Your task to perform on an android device: toggle translation in the chrome app Image 0: 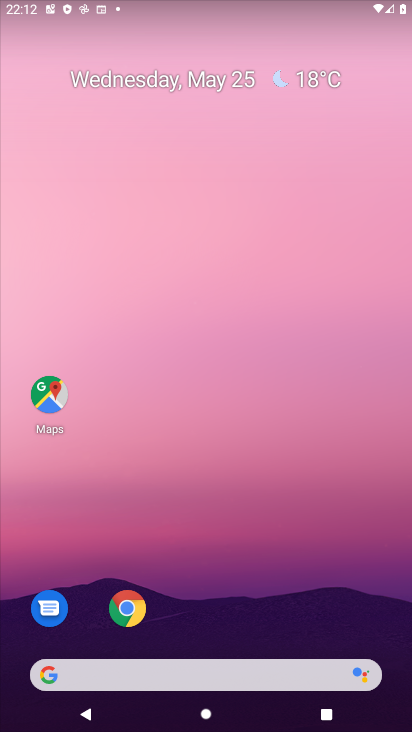
Step 0: click (135, 613)
Your task to perform on an android device: toggle translation in the chrome app Image 1: 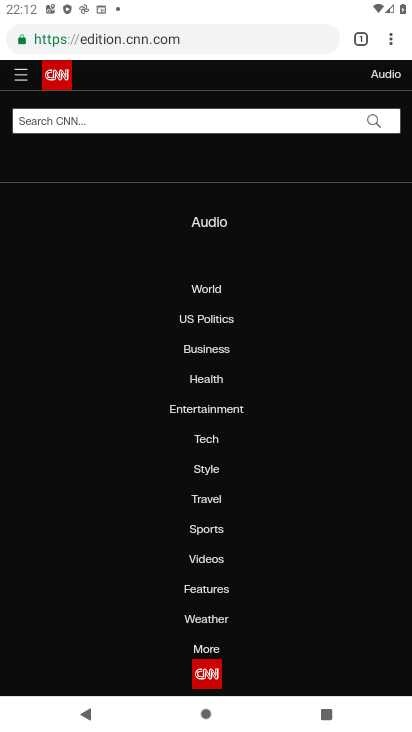
Step 1: click (390, 27)
Your task to perform on an android device: toggle translation in the chrome app Image 2: 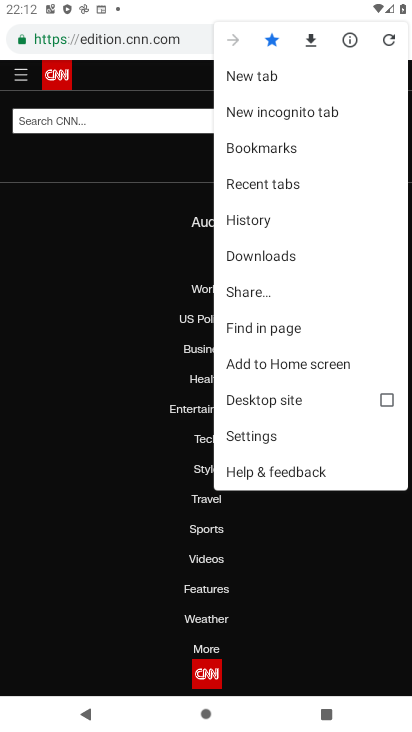
Step 2: click (279, 437)
Your task to perform on an android device: toggle translation in the chrome app Image 3: 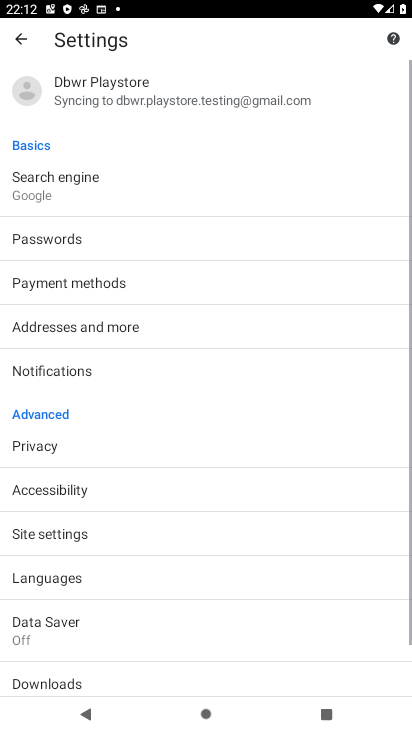
Step 3: click (91, 580)
Your task to perform on an android device: toggle translation in the chrome app Image 4: 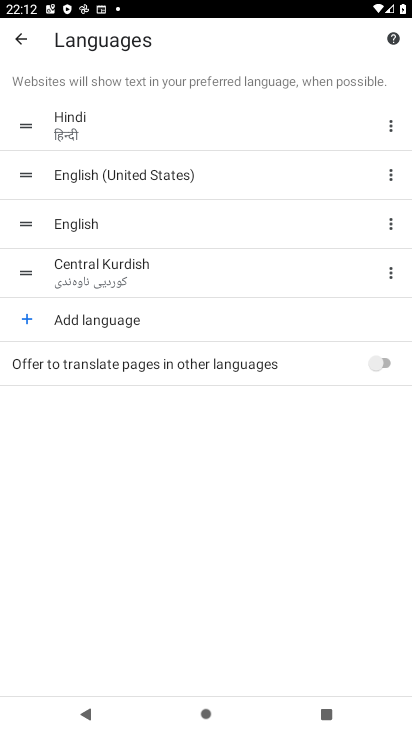
Step 4: click (377, 358)
Your task to perform on an android device: toggle translation in the chrome app Image 5: 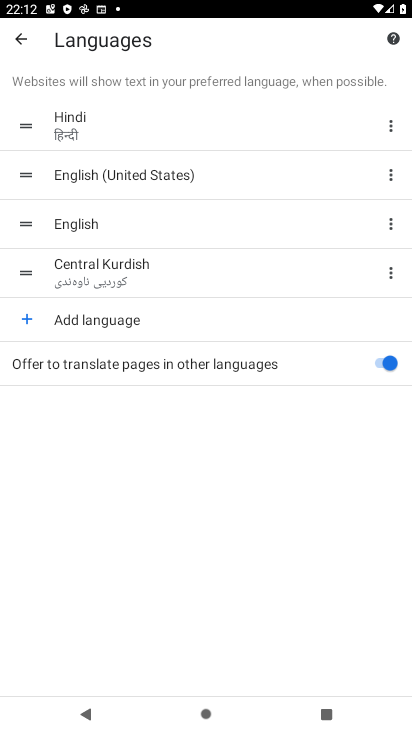
Step 5: task complete